Your task to perform on an android device: turn off javascript in the chrome app Image 0: 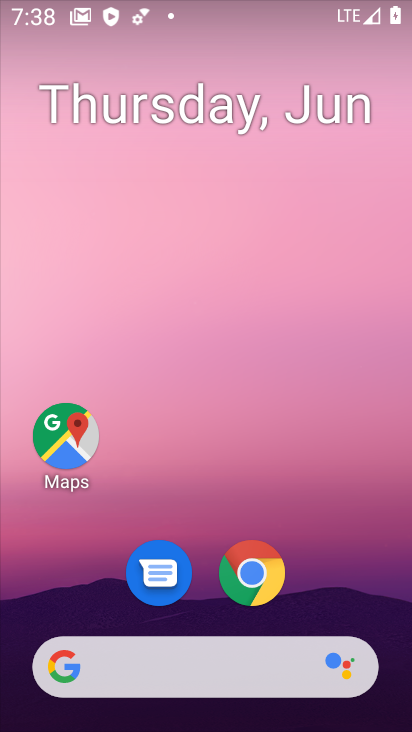
Step 0: drag from (237, 590) to (226, 254)
Your task to perform on an android device: turn off javascript in the chrome app Image 1: 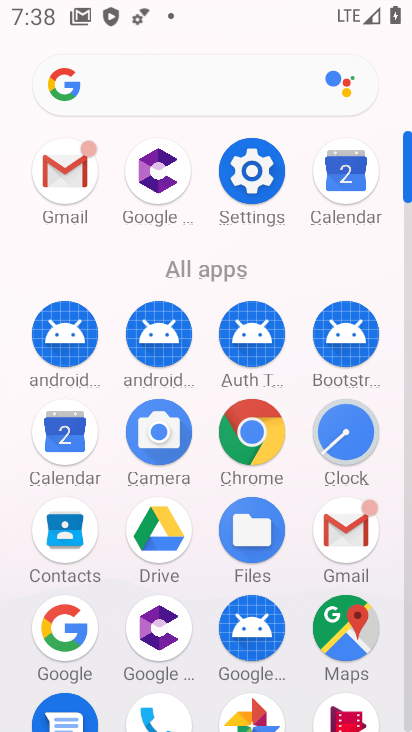
Step 1: click (234, 417)
Your task to perform on an android device: turn off javascript in the chrome app Image 2: 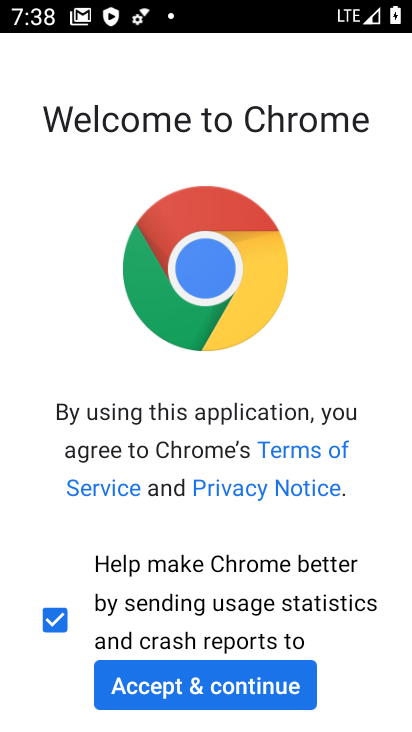
Step 2: click (188, 663)
Your task to perform on an android device: turn off javascript in the chrome app Image 3: 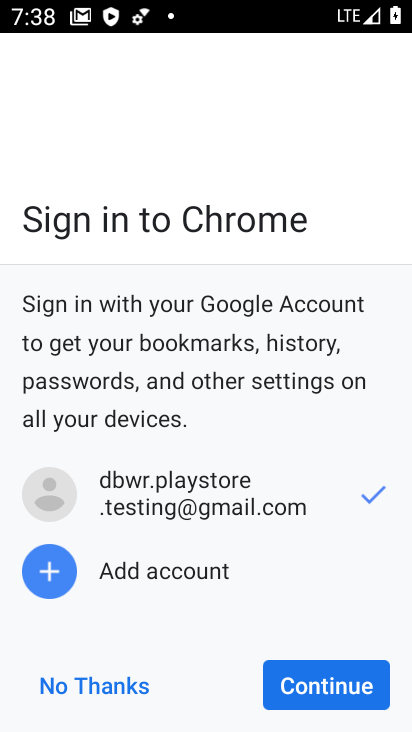
Step 3: click (314, 669)
Your task to perform on an android device: turn off javascript in the chrome app Image 4: 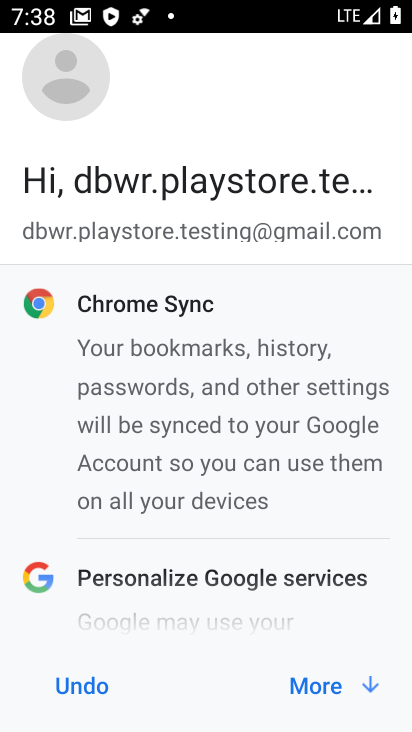
Step 4: click (308, 695)
Your task to perform on an android device: turn off javascript in the chrome app Image 5: 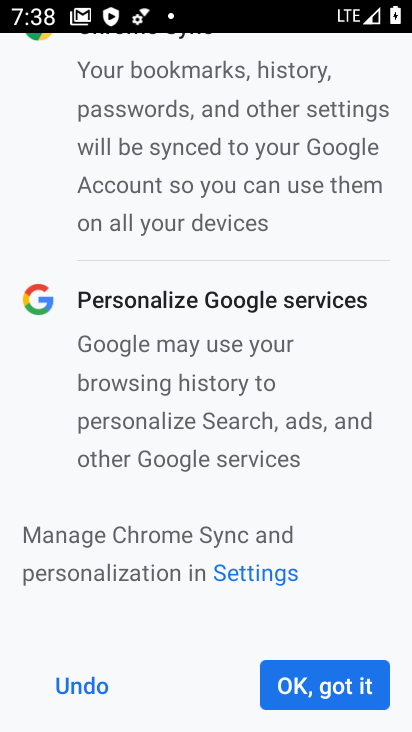
Step 5: click (306, 685)
Your task to perform on an android device: turn off javascript in the chrome app Image 6: 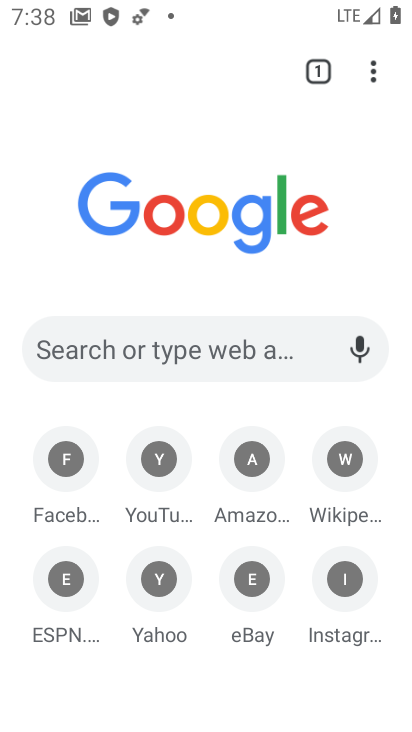
Step 6: click (370, 73)
Your task to perform on an android device: turn off javascript in the chrome app Image 7: 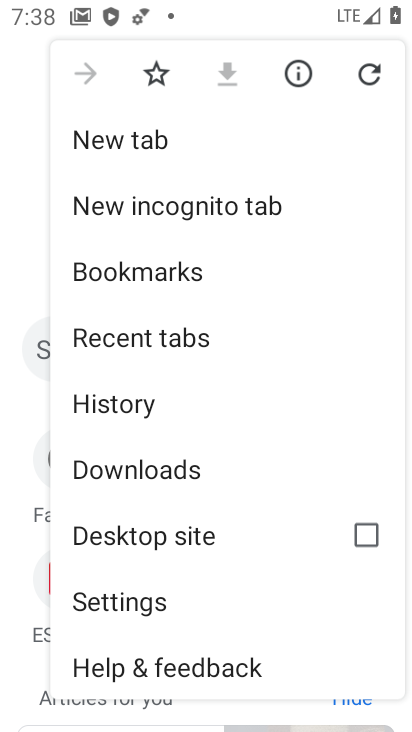
Step 7: click (111, 556)
Your task to perform on an android device: turn off javascript in the chrome app Image 8: 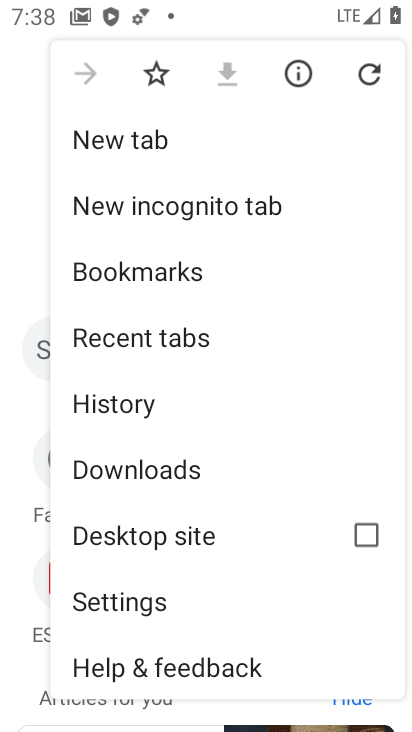
Step 8: click (118, 597)
Your task to perform on an android device: turn off javascript in the chrome app Image 9: 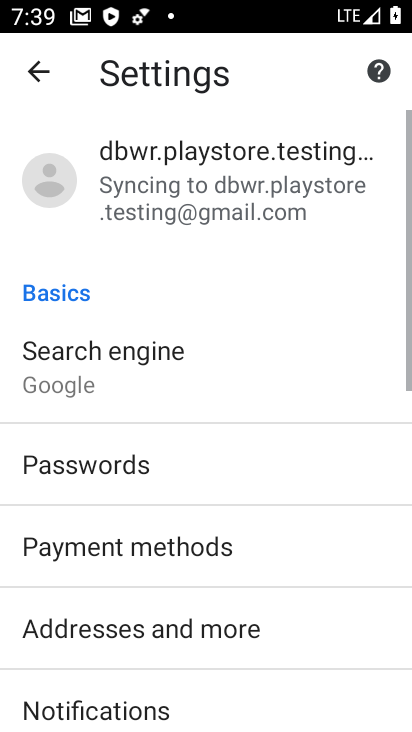
Step 9: drag from (157, 615) to (209, 262)
Your task to perform on an android device: turn off javascript in the chrome app Image 10: 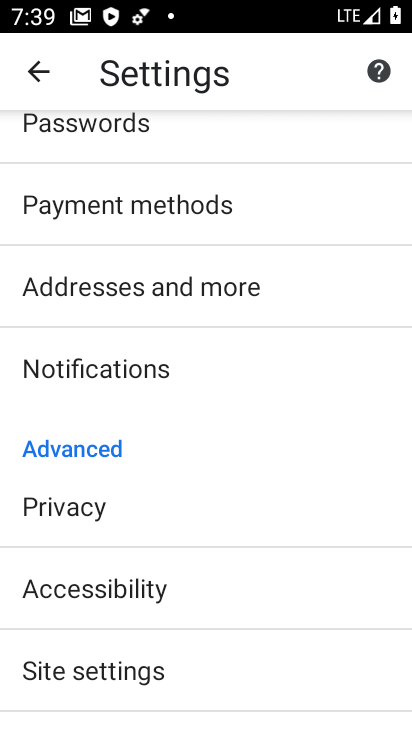
Step 10: drag from (205, 645) to (255, 281)
Your task to perform on an android device: turn off javascript in the chrome app Image 11: 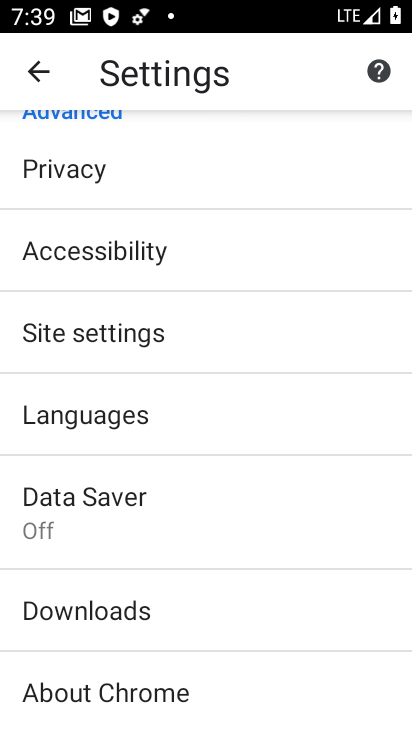
Step 11: click (158, 329)
Your task to perform on an android device: turn off javascript in the chrome app Image 12: 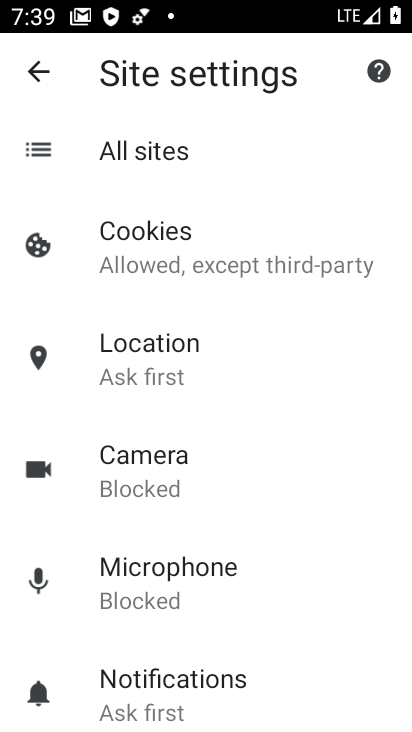
Step 12: drag from (172, 621) to (205, 403)
Your task to perform on an android device: turn off javascript in the chrome app Image 13: 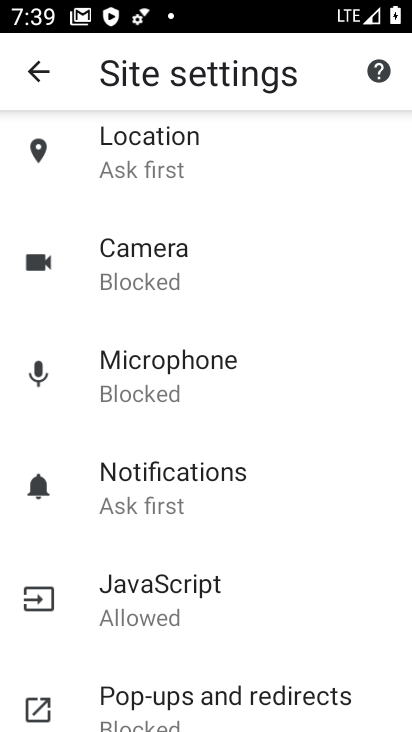
Step 13: click (171, 596)
Your task to perform on an android device: turn off javascript in the chrome app Image 14: 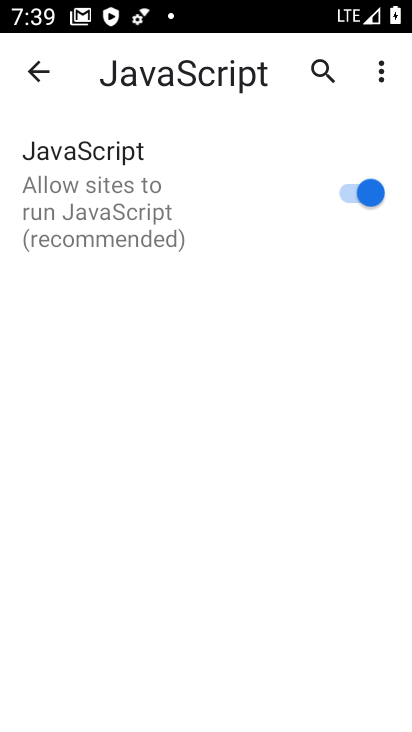
Step 14: click (364, 174)
Your task to perform on an android device: turn off javascript in the chrome app Image 15: 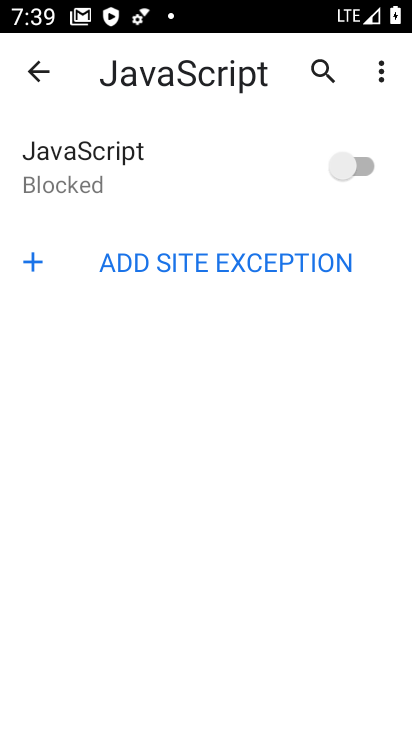
Step 15: task complete